Your task to perform on an android device: Open CNN.com Image 0: 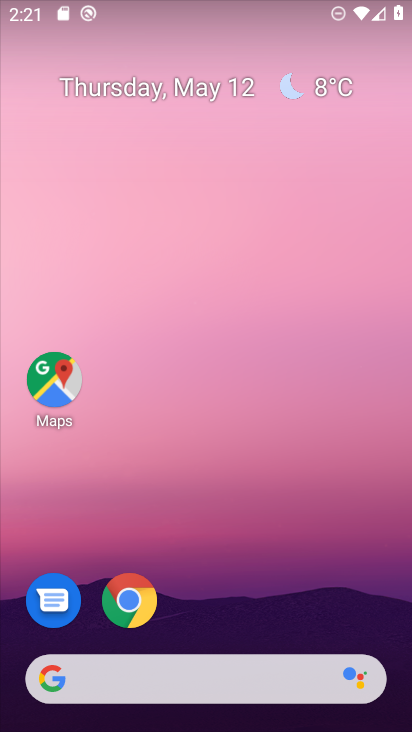
Step 0: click (138, 590)
Your task to perform on an android device: Open CNN.com Image 1: 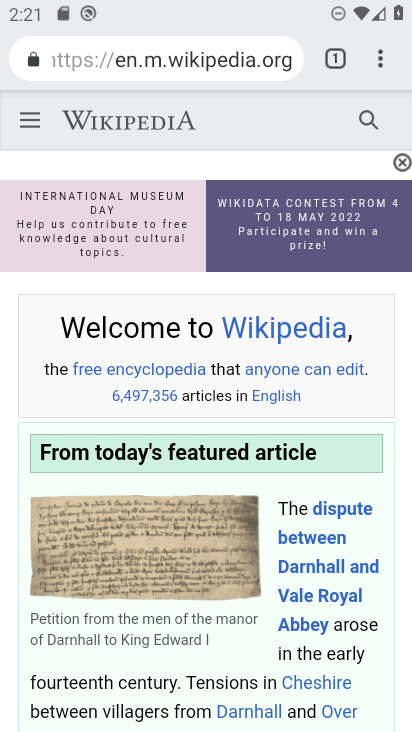
Step 1: click (381, 62)
Your task to perform on an android device: Open CNN.com Image 2: 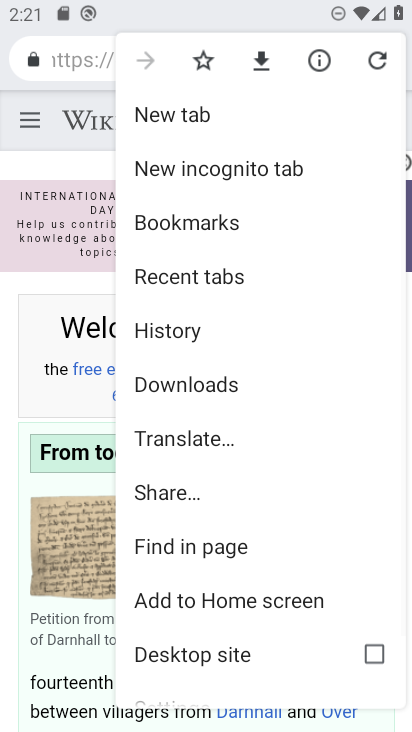
Step 2: click (193, 109)
Your task to perform on an android device: Open CNN.com Image 3: 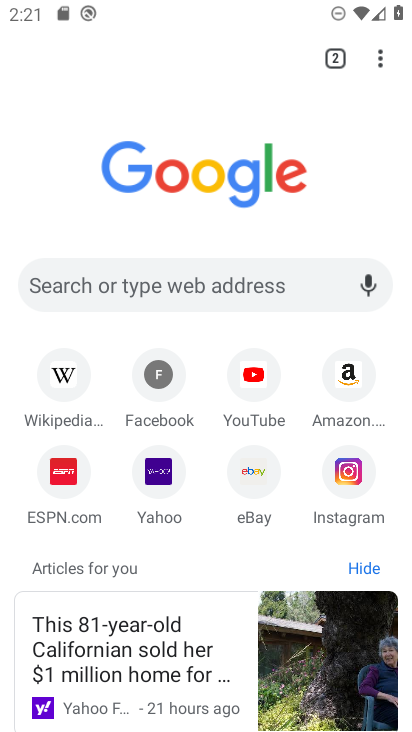
Step 3: click (225, 280)
Your task to perform on an android device: Open CNN.com Image 4: 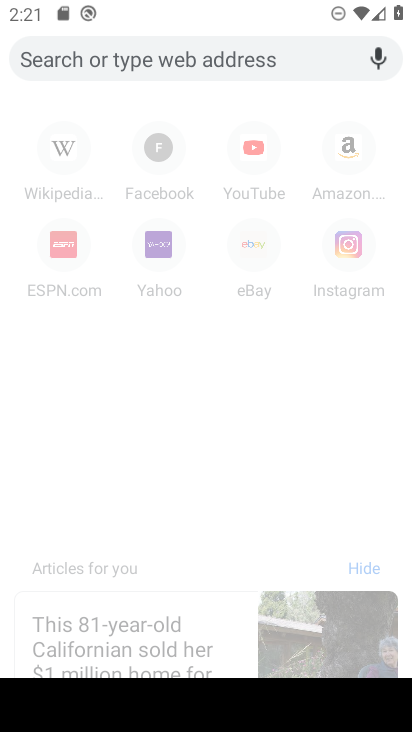
Step 4: type "CNN.com"
Your task to perform on an android device: Open CNN.com Image 5: 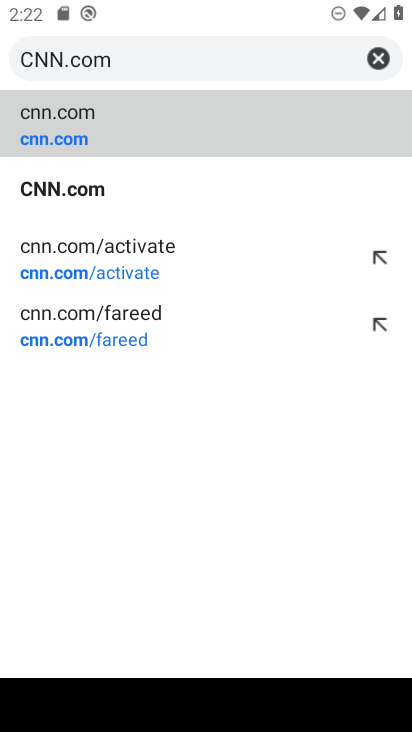
Step 5: click (37, 114)
Your task to perform on an android device: Open CNN.com Image 6: 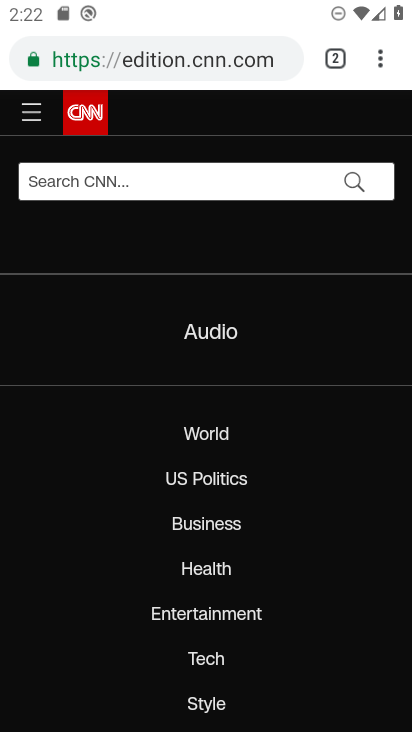
Step 6: task complete